Your task to perform on an android device: stop showing notifications on the lock screen Image 0: 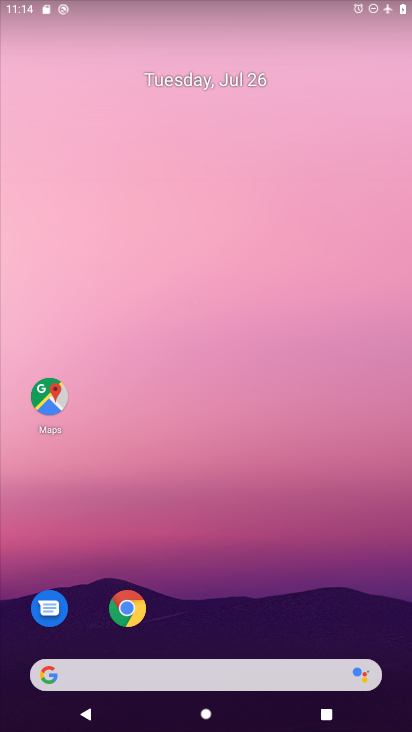
Step 0: drag from (262, 601) to (255, 132)
Your task to perform on an android device: stop showing notifications on the lock screen Image 1: 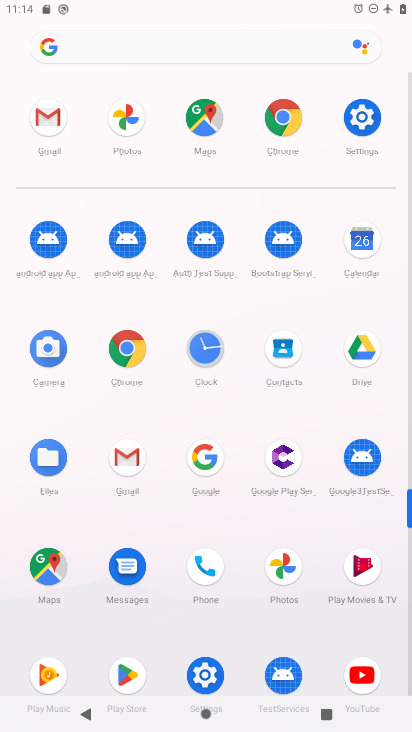
Step 1: click (366, 120)
Your task to perform on an android device: stop showing notifications on the lock screen Image 2: 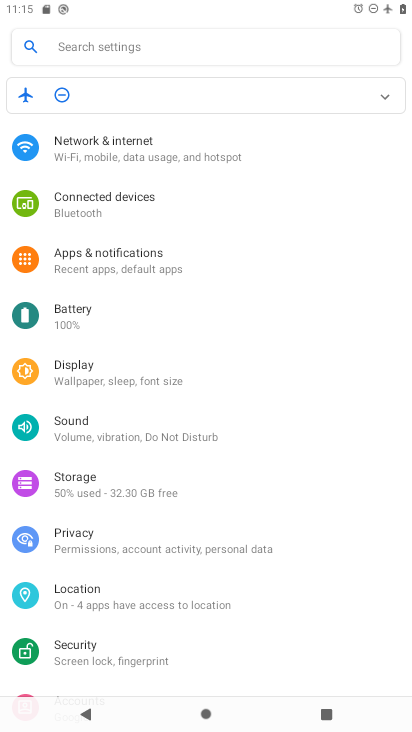
Step 2: click (127, 261)
Your task to perform on an android device: stop showing notifications on the lock screen Image 3: 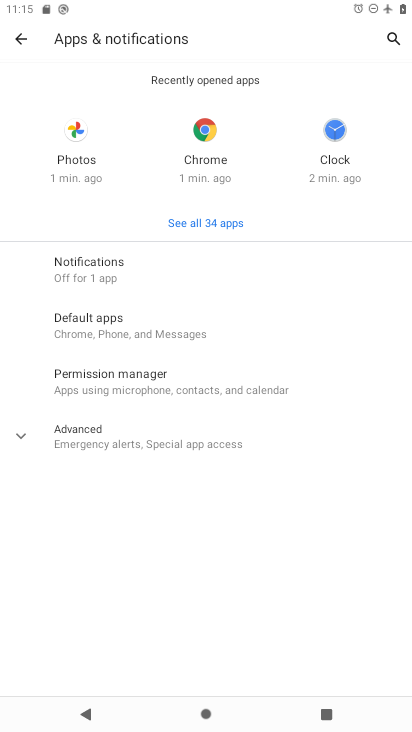
Step 3: click (127, 261)
Your task to perform on an android device: stop showing notifications on the lock screen Image 4: 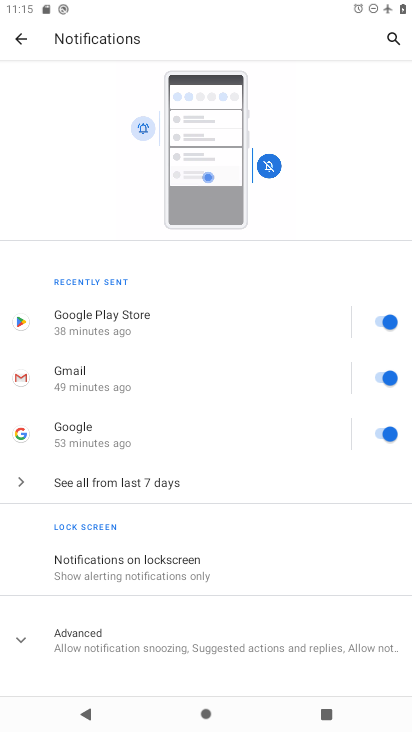
Step 4: click (148, 565)
Your task to perform on an android device: stop showing notifications on the lock screen Image 5: 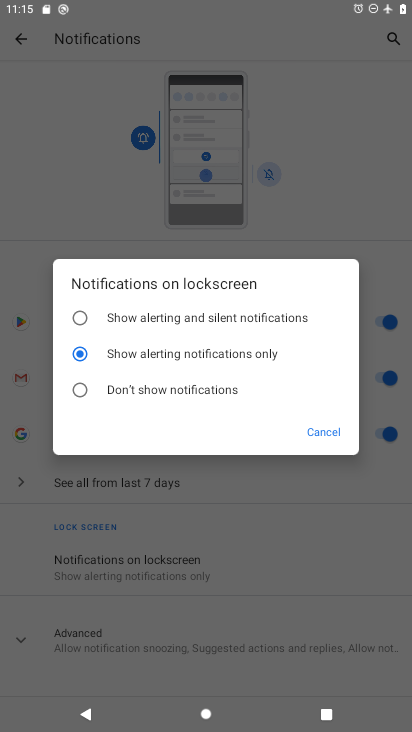
Step 5: click (191, 396)
Your task to perform on an android device: stop showing notifications on the lock screen Image 6: 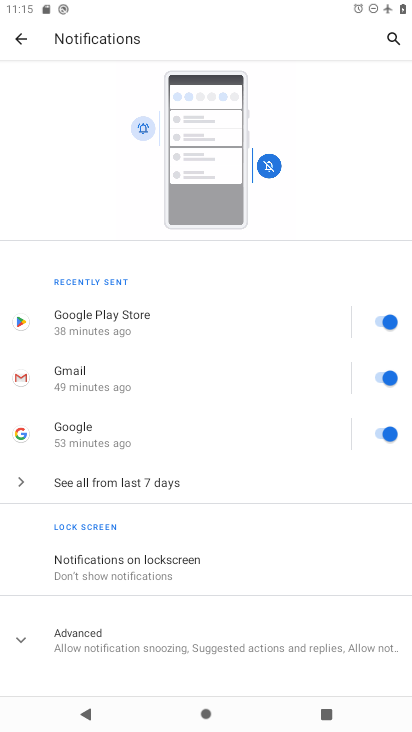
Step 6: task complete